Your task to perform on an android device: turn on translation in the chrome app Image 0: 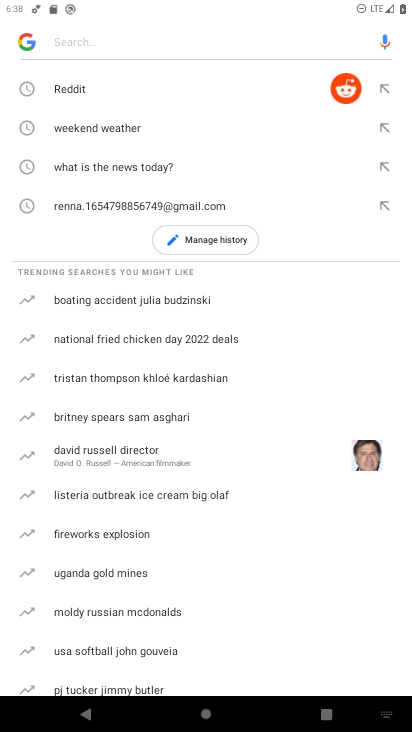
Step 0: press home button
Your task to perform on an android device: turn on translation in the chrome app Image 1: 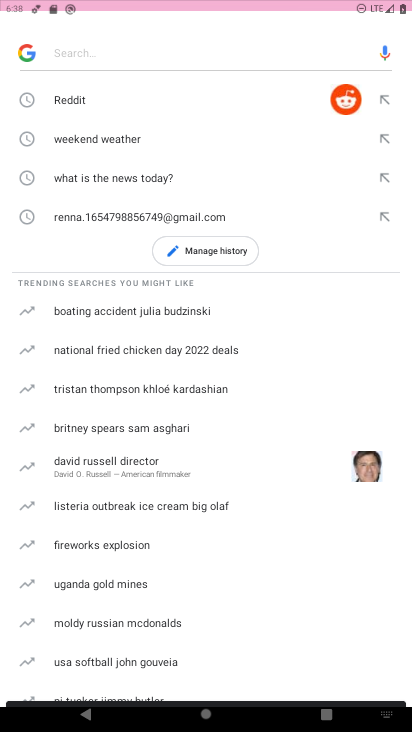
Step 1: drag from (300, 603) to (287, 9)
Your task to perform on an android device: turn on translation in the chrome app Image 2: 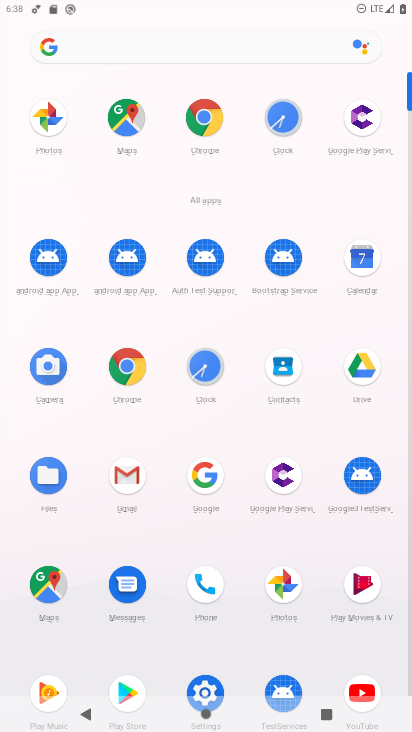
Step 2: click (210, 118)
Your task to perform on an android device: turn on translation in the chrome app Image 3: 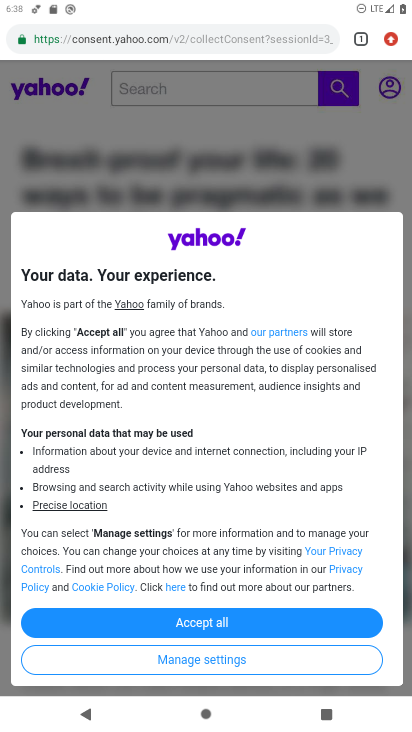
Step 3: drag from (387, 34) to (254, 500)
Your task to perform on an android device: turn on translation in the chrome app Image 4: 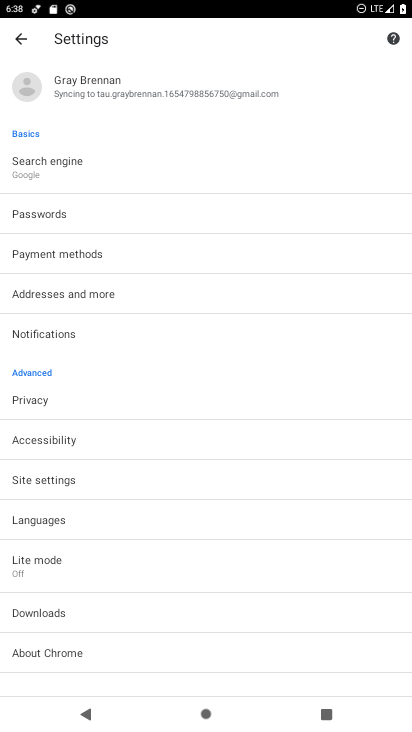
Step 4: click (44, 565)
Your task to perform on an android device: turn on translation in the chrome app Image 5: 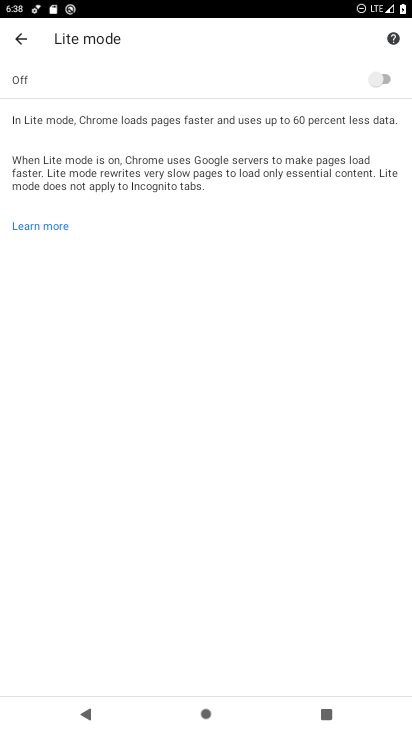
Step 5: click (22, 38)
Your task to perform on an android device: turn on translation in the chrome app Image 6: 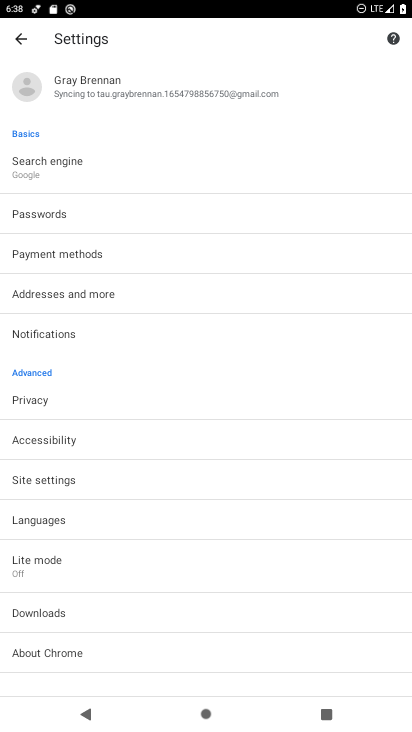
Step 6: click (46, 522)
Your task to perform on an android device: turn on translation in the chrome app Image 7: 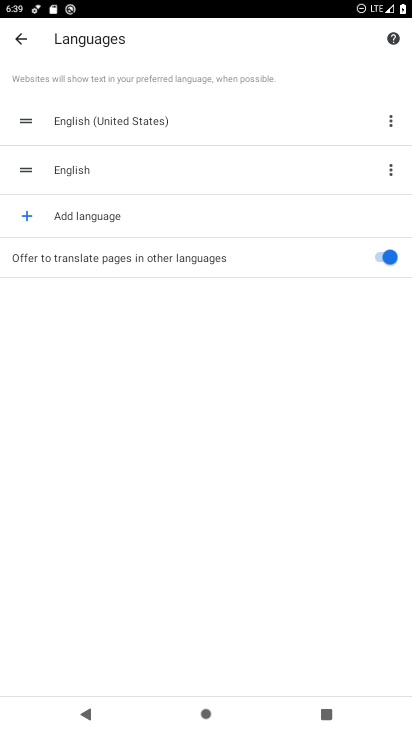
Step 7: task complete